Your task to perform on an android device: change alarm snooze length Image 0: 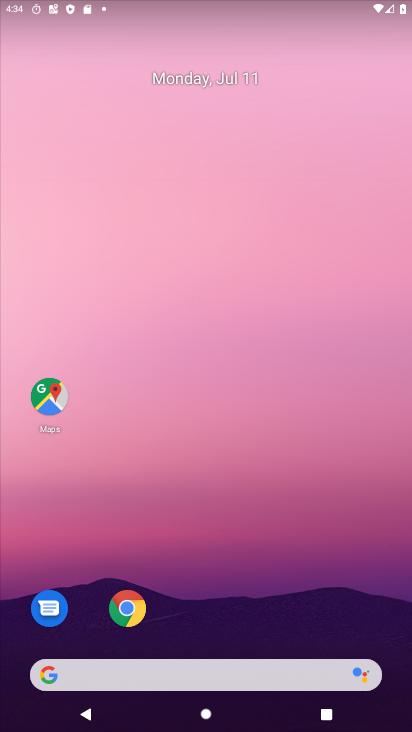
Step 0: drag from (268, 683) to (215, 138)
Your task to perform on an android device: change alarm snooze length Image 1: 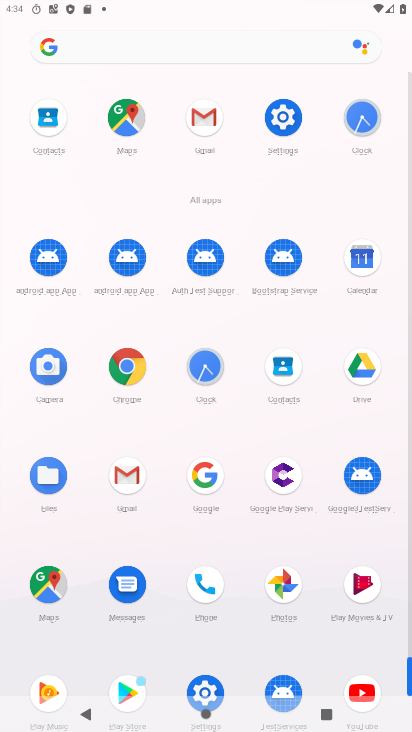
Step 1: click (192, 367)
Your task to perform on an android device: change alarm snooze length Image 2: 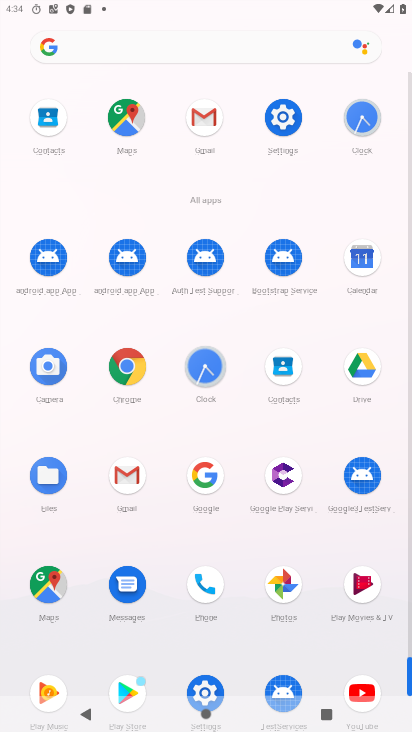
Step 2: click (203, 356)
Your task to perform on an android device: change alarm snooze length Image 3: 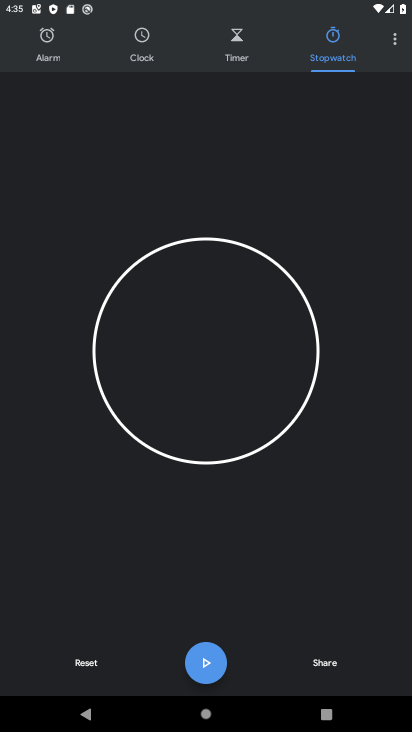
Step 3: click (401, 40)
Your task to perform on an android device: change alarm snooze length Image 4: 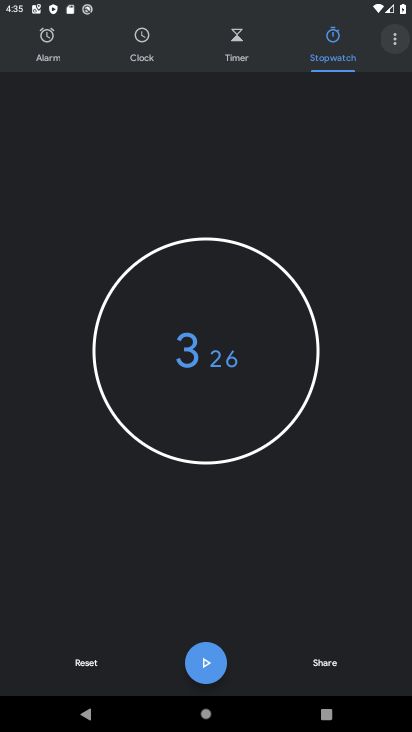
Step 4: click (401, 40)
Your task to perform on an android device: change alarm snooze length Image 5: 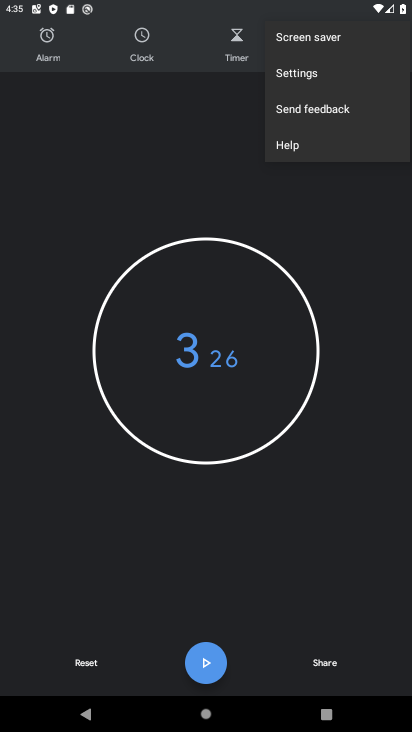
Step 5: click (401, 40)
Your task to perform on an android device: change alarm snooze length Image 6: 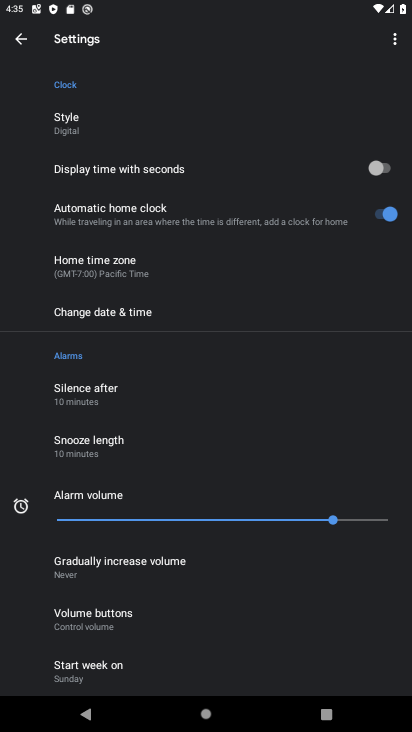
Step 6: click (97, 440)
Your task to perform on an android device: change alarm snooze length Image 7: 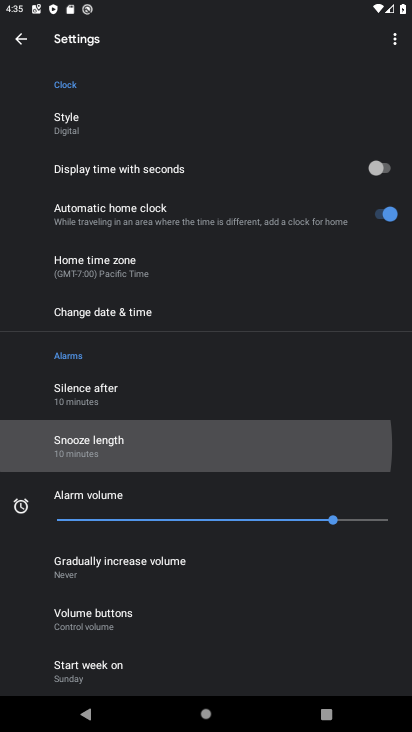
Step 7: click (97, 440)
Your task to perform on an android device: change alarm snooze length Image 8: 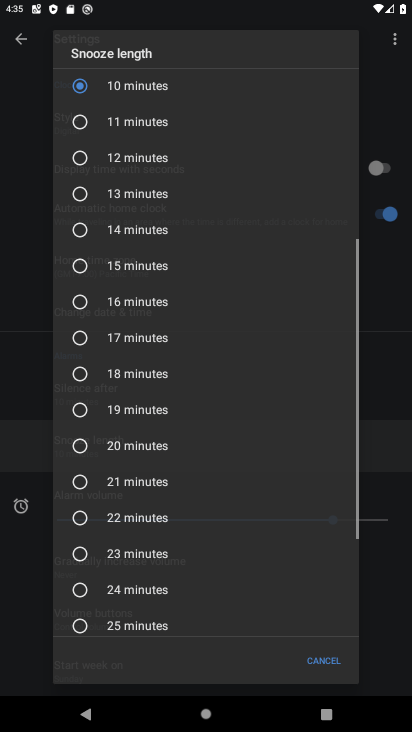
Step 8: click (99, 440)
Your task to perform on an android device: change alarm snooze length Image 9: 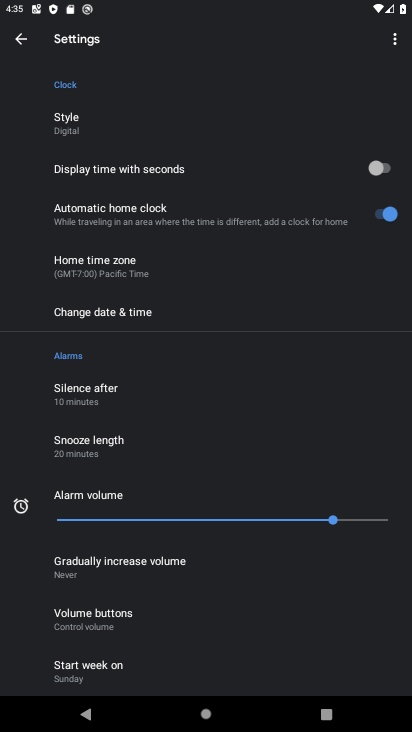
Step 9: click (87, 431)
Your task to perform on an android device: change alarm snooze length Image 10: 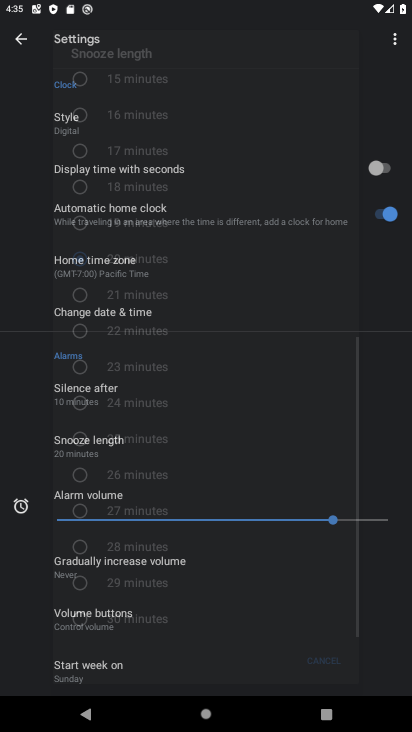
Step 10: click (88, 431)
Your task to perform on an android device: change alarm snooze length Image 11: 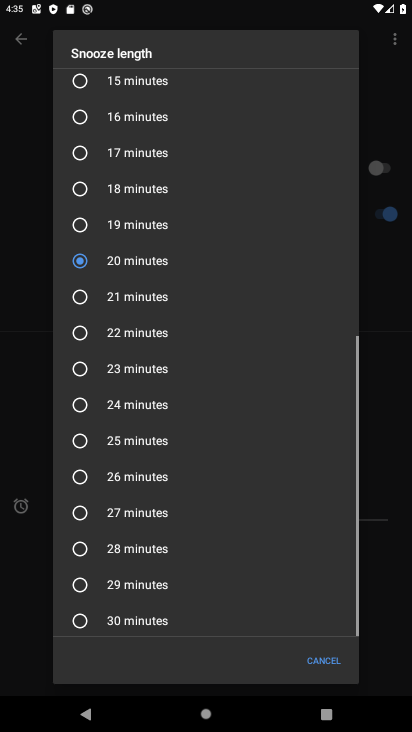
Step 11: click (90, 439)
Your task to perform on an android device: change alarm snooze length Image 12: 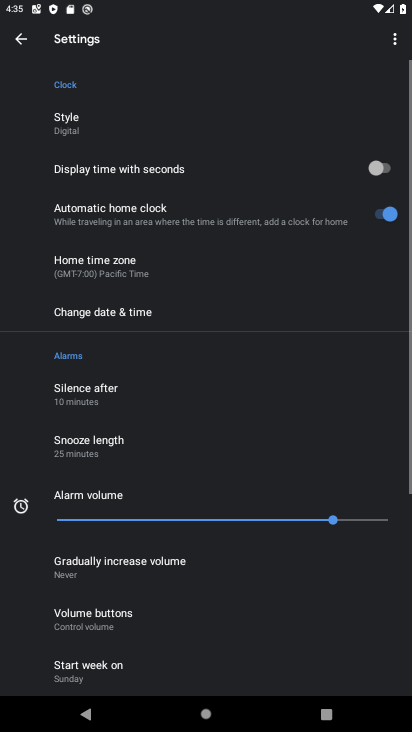
Step 12: click (93, 435)
Your task to perform on an android device: change alarm snooze length Image 13: 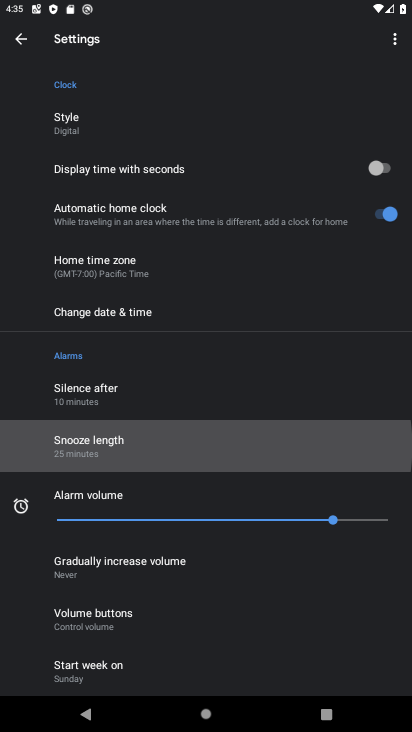
Step 13: click (93, 439)
Your task to perform on an android device: change alarm snooze length Image 14: 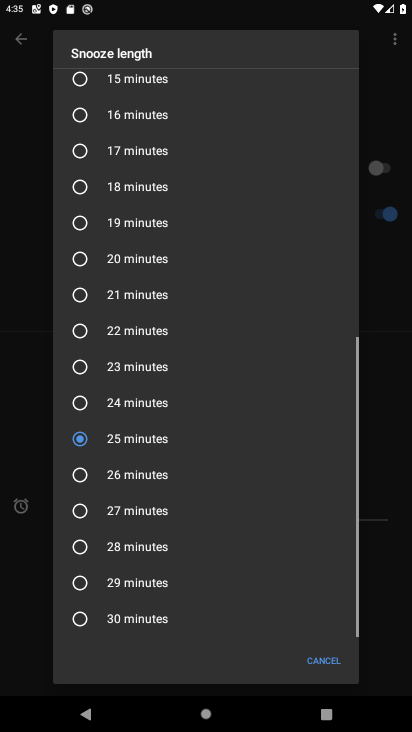
Step 14: click (77, 334)
Your task to perform on an android device: change alarm snooze length Image 15: 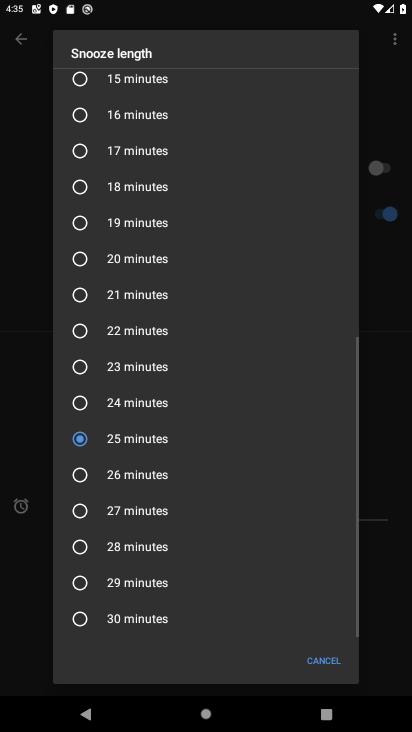
Step 15: click (77, 334)
Your task to perform on an android device: change alarm snooze length Image 16: 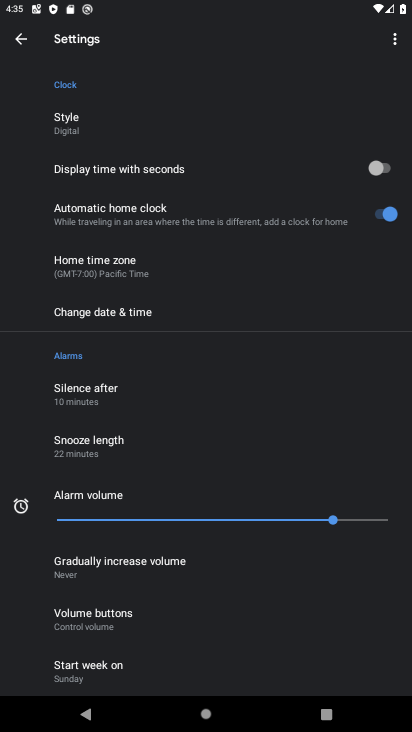
Step 16: task complete